Your task to perform on an android device: Open the phone app and click the voicemail tab. Image 0: 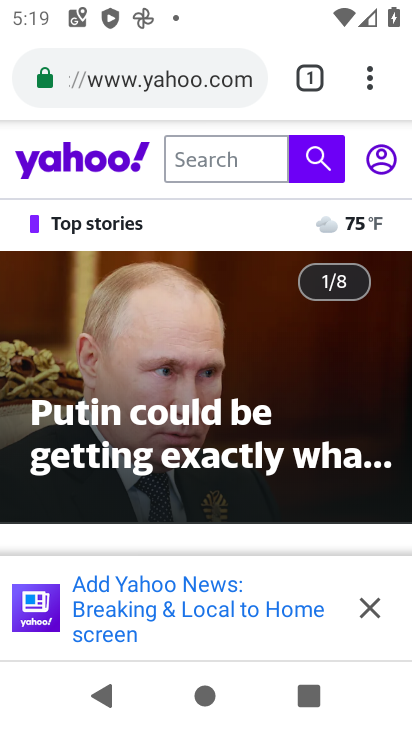
Step 0: press home button
Your task to perform on an android device: Open the phone app and click the voicemail tab. Image 1: 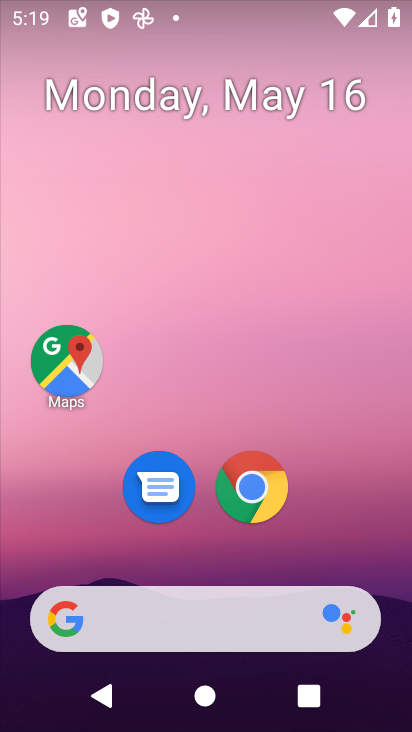
Step 1: drag from (396, 607) to (244, 3)
Your task to perform on an android device: Open the phone app and click the voicemail tab. Image 2: 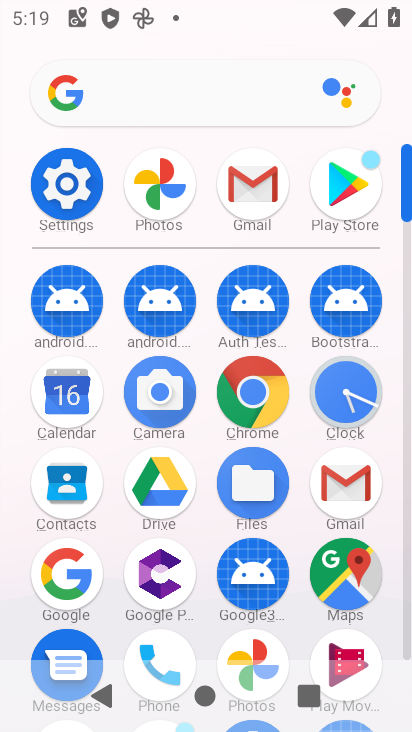
Step 2: click (403, 645)
Your task to perform on an android device: Open the phone app and click the voicemail tab. Image 3: 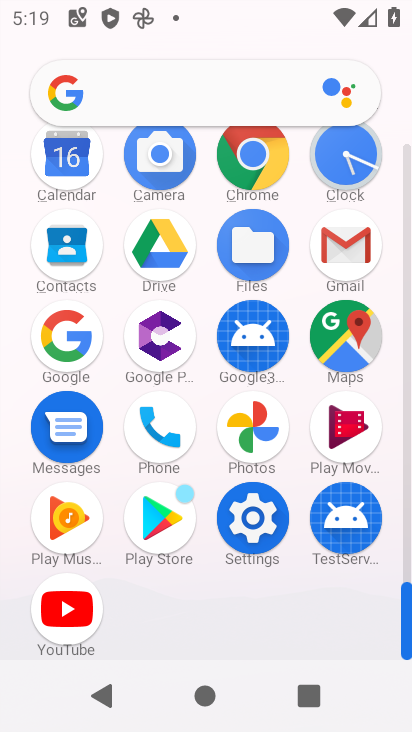
Step 3: click (149, 418)
Your task to perform on an android device: Open the phone app and click the voicemail tab. Image 4: 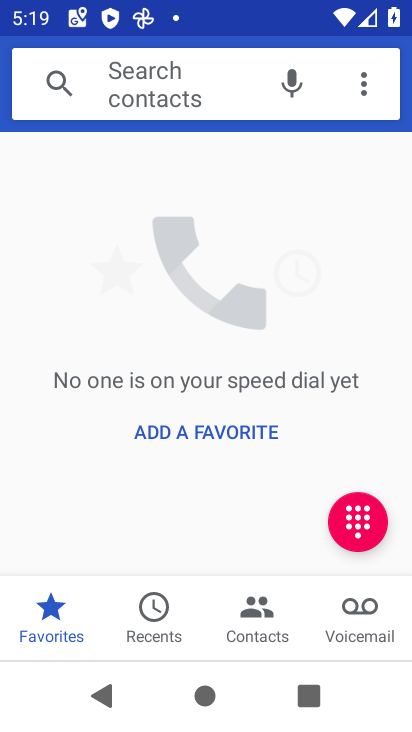
Step 4: click (354, 602)
Your task to perform on an android device: Open the phone app and click the voicemail tab. Image 5: 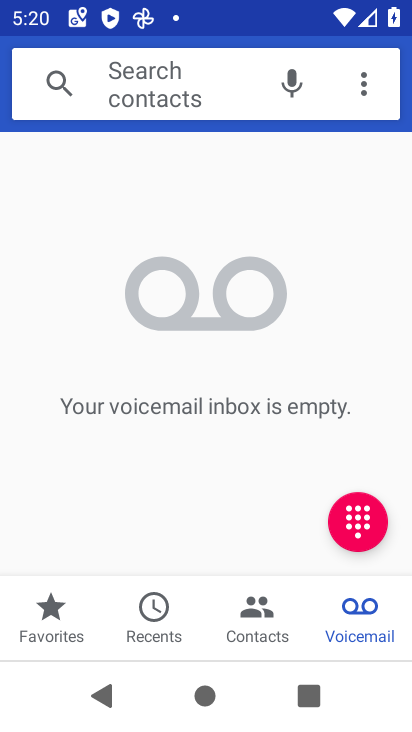
Step 5: task complete